Your task to perform on an android device: turn on translation in the chrome app Image 0: 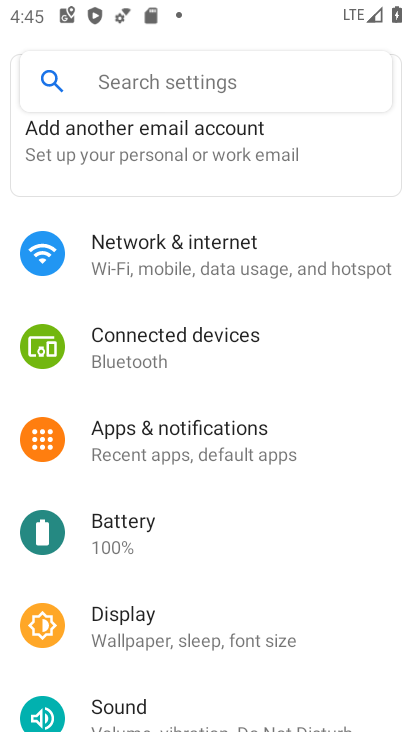
Step 0: press home button
Your task to perform on an android device: turn on translation in the chrome app Image 1: 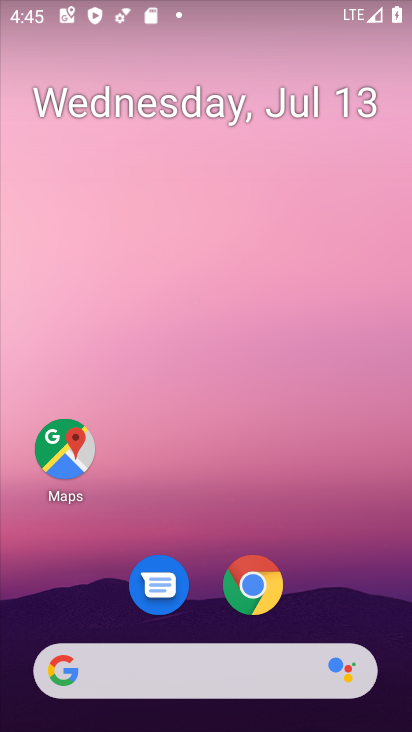
Step 1: click (266, 581)
Your task to perform on an android device: turn on translation in the chrome app Image 2: 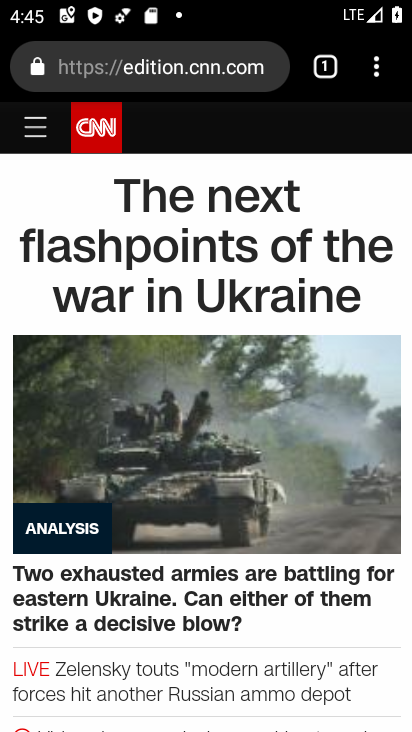
Step 2: click (377, 83)
Your task to perform on an android device: turn on translation in the chrome app Image 3: 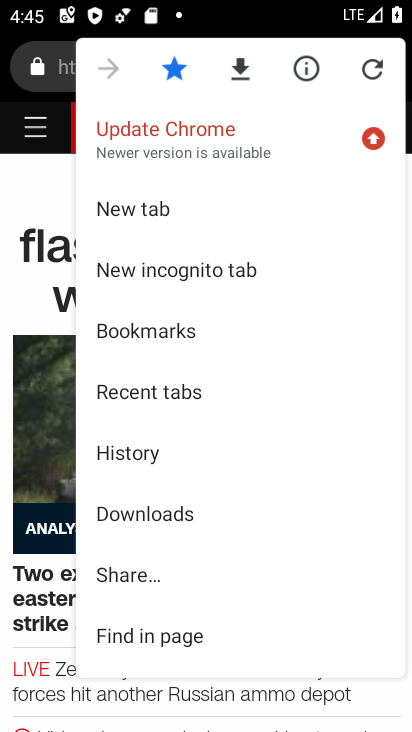
Step 3: drag from (241, 621) to (237, 255)
Your task to perform on an android device: turn on translation in the chrome app Image 4: 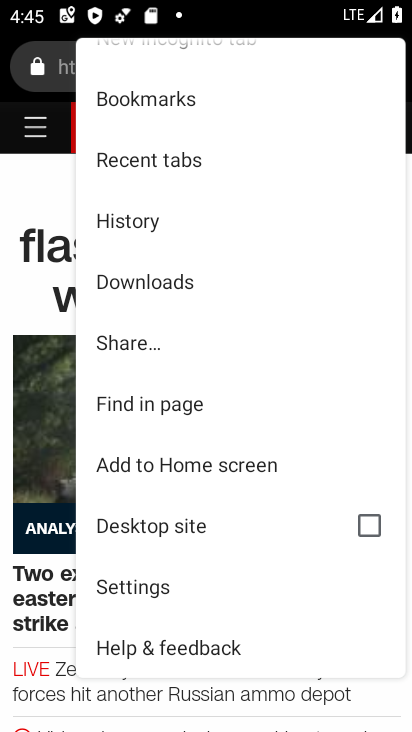
Step 4: click (135, 588)
Your task to perform on an android device: turn on translation in the chrome app Image 5: 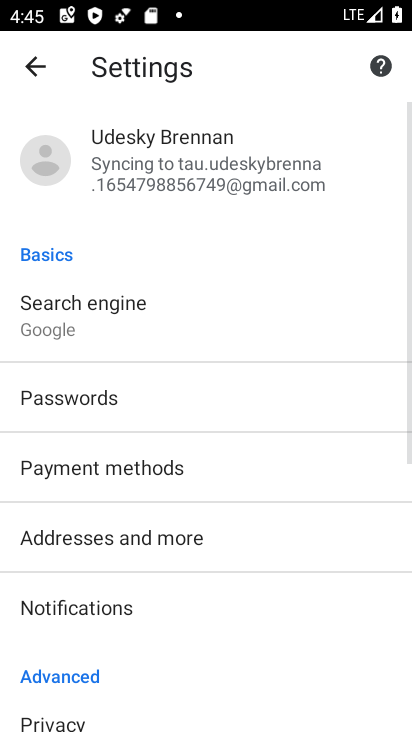
Step 5: drag from (218, 586) to (231, 322)
Your task to perform on an android device: turn on translation in the chrome app Image 6: 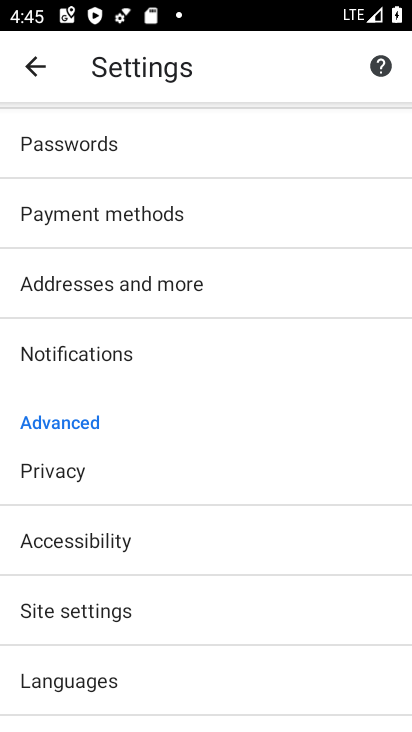
Step 6: click (184, 667)
Your task to perform on an android device: turn on translation in the chrome app Image 7: 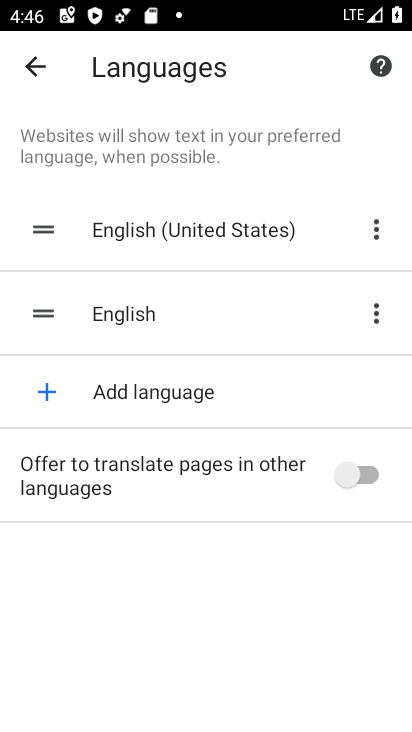
Step 7: click (361, 464)
Your task to perform on an android device: turn on translation in the chrome app Image 8: 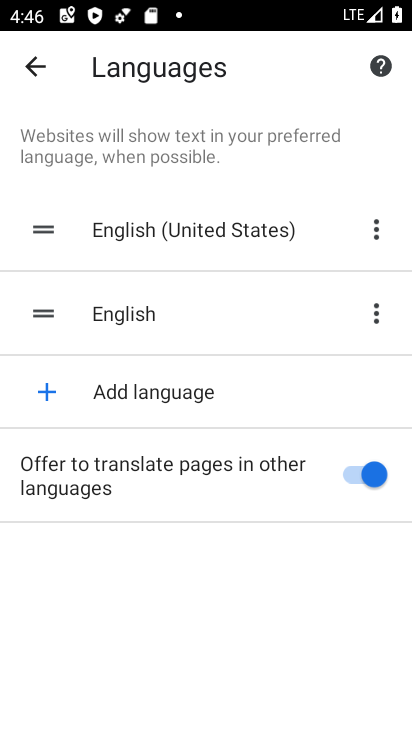
Step 8: task complete